Your task to perform on an android device: Open sound settings Image 0: 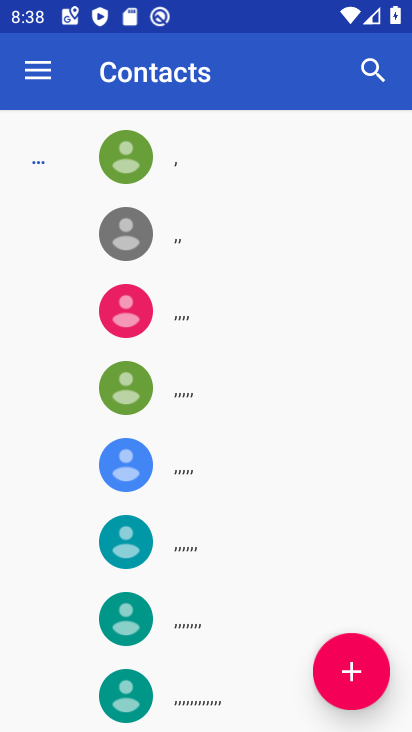
Step 0: press home button
Your task to perform on an android device: Open sound settings Image 1: 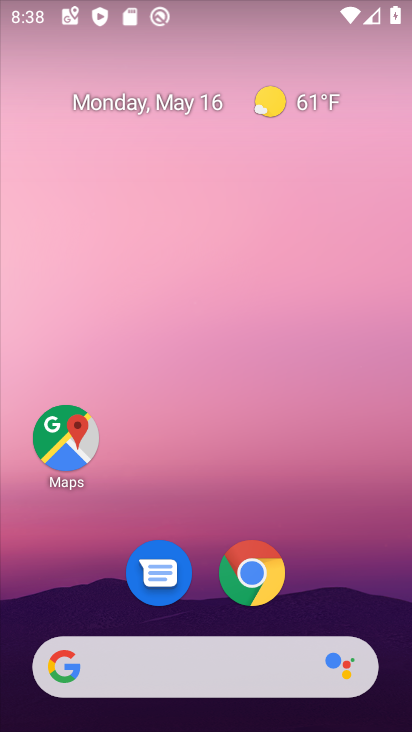
Step 1: drag from (216, 729) to (217, 112)
Your task to perform on an android device: Open sound settings Image 2: 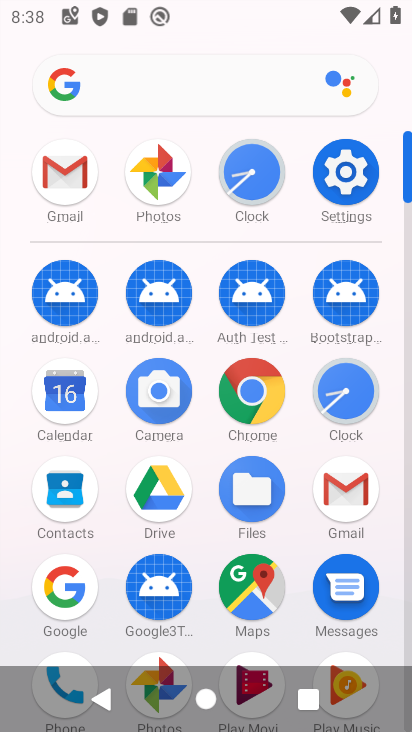
Step 2: click (352, 176)
Your task to perform on an android device: Open sound settings Image 3: 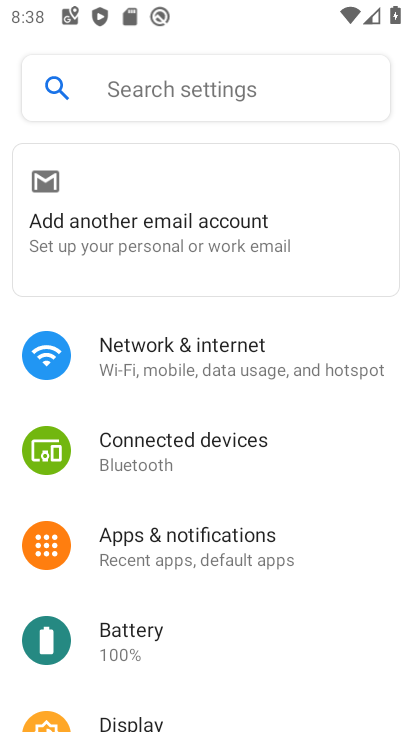
Step 3: drag from (190, 654) to (189, 274)
Your task to perform on an android device: Open sound settings Image 4: 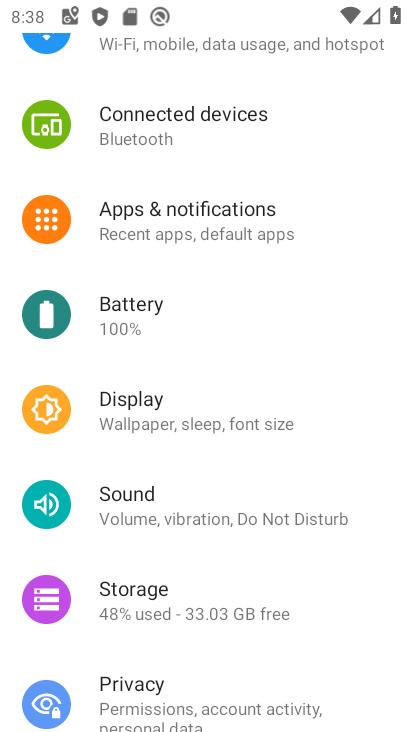
Step 4: click (161, 513)
Your task to perform on an android device: Open sound settings Image 5: 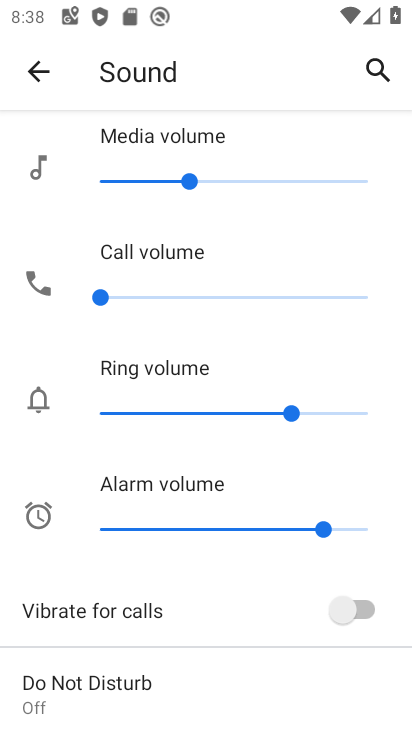
Step 5: task complete